Your task to perform on an android device: Go to location settings Image 0: 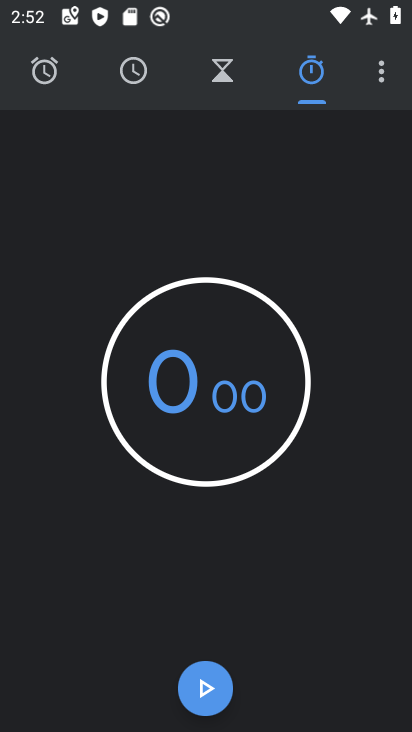
Step 0: press home button
Your task to perform on an android device: Go to location settings Image 1: 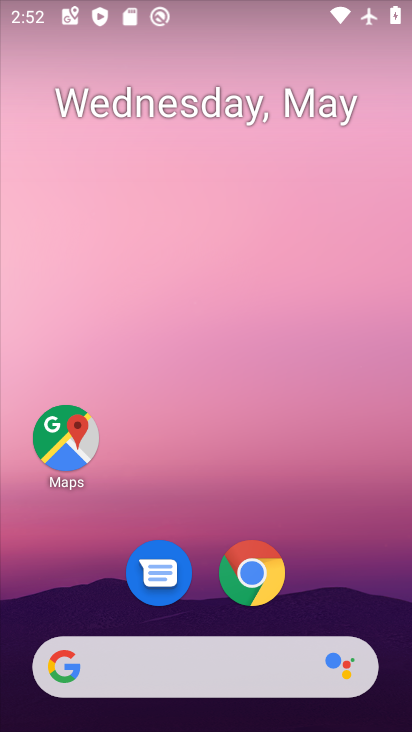
Step 1: drag from (328, 483) to (298, 87)
Your task to perform on an android device: Go to location settings Image 2: 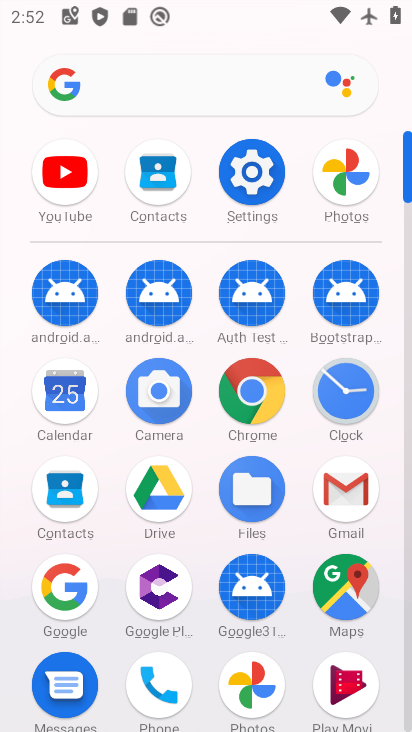
Step 2: click (258, 177)
Your task to perform on an android device: Go to location settings Image 3: 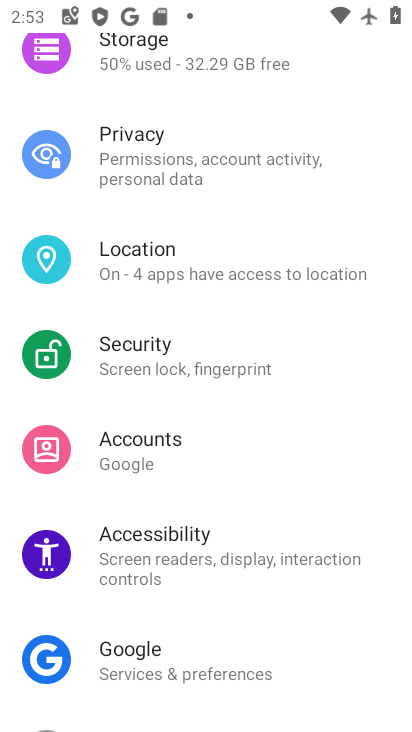
Step 3: drag from (199, 644) to (223, 226)
Your task to perform on an android device: Go to location settings Image 4: 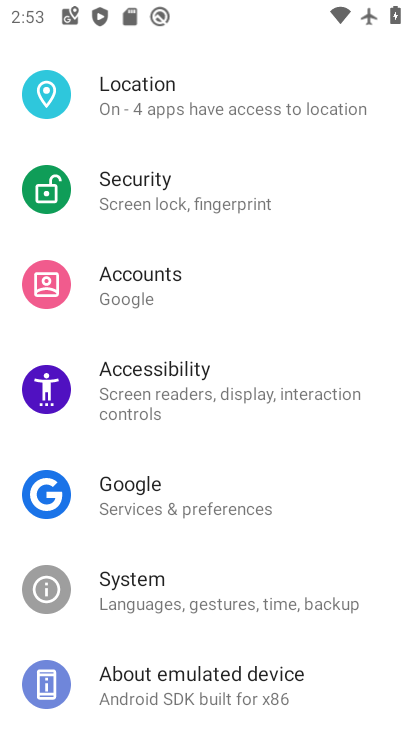
Step 4: click (227, 107)
Your task to perform on an android device: Go to location settings Image 5: 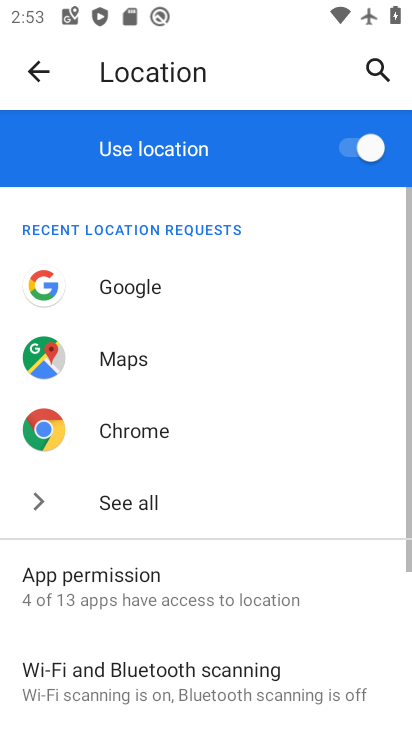
Step 5: task complete